Your task to perform on an android device: open app "Google Photos" Image 0: 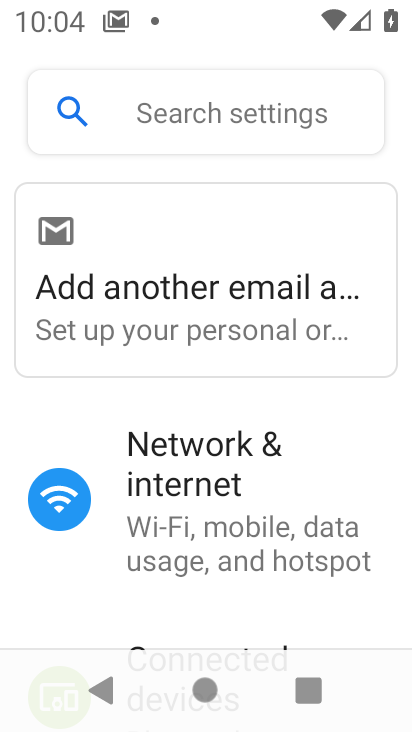
Step 0: press home button
Your task to perform on an android device: open app "Google Photos" Image 1: 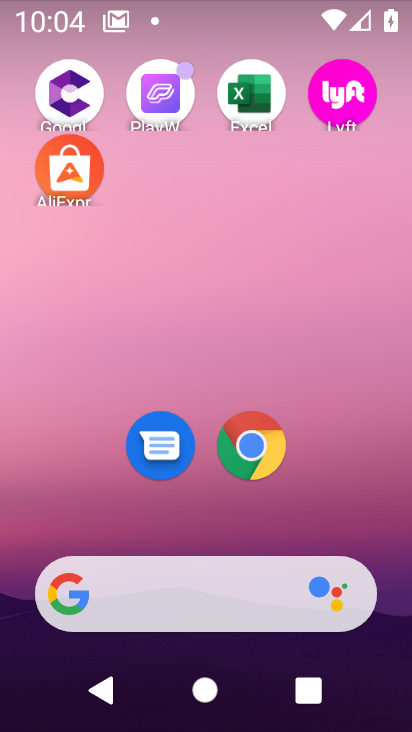
Step 1: drag from (191, 499) to (289, 52)
Your task to perform on an android device: open app "Google Photos" Image 2: 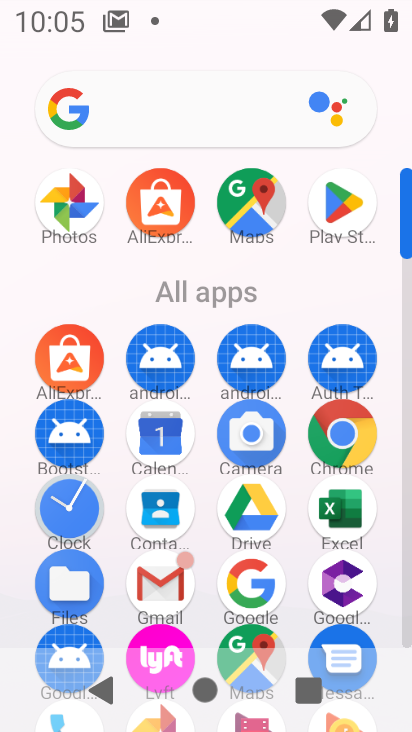
Step 2: drag from (296, 502) to (297, 181)
Your task to perform on an android device: open app "Google Photos" Image 3: 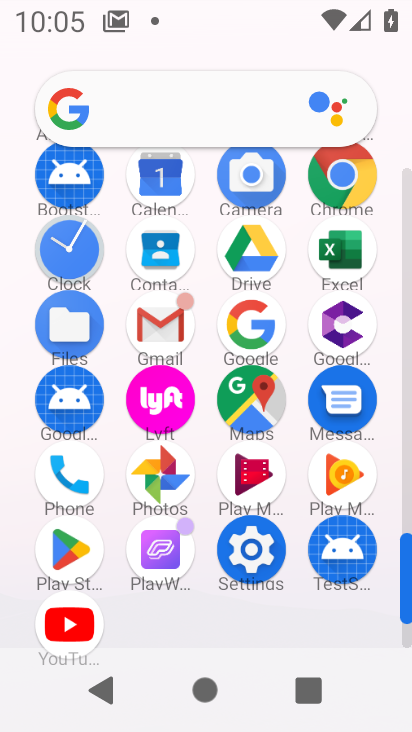
Step 3: click (164, 482)
Your task to perform on an android device: open app "Google Photos" Image 4: 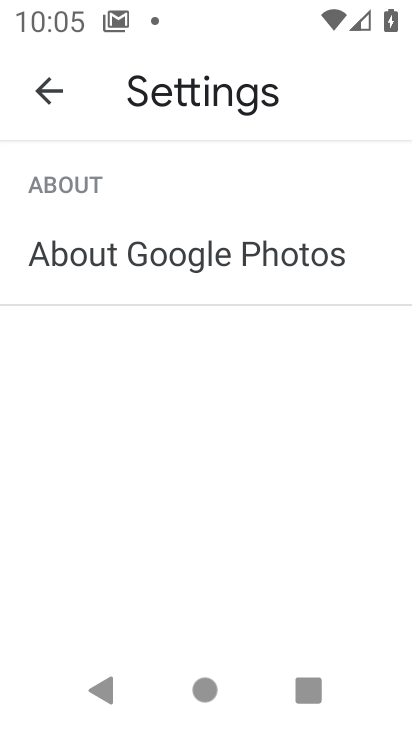
Step 4: click (41, 85)
Your task to perform on an android device: open app "Google Photos" Image 5: 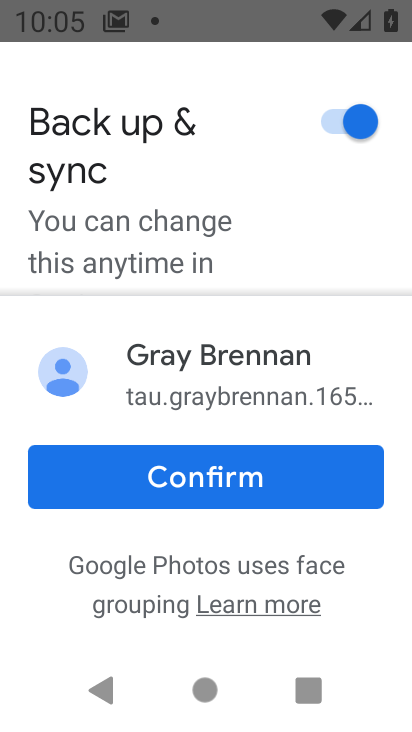
Step 5: task complete